Your task to perform on an android device: make emails show in primary in the gmail app Image 0: 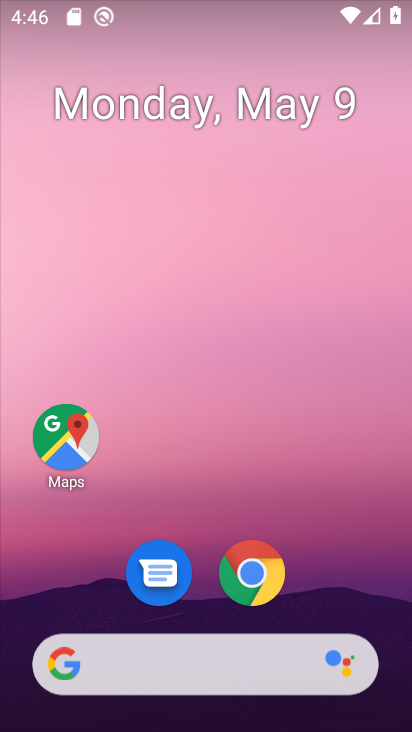
Step 0: drag from (393, 621) to (354, 130)
Your task to perform on an android device: make emails show in primary in the gmail app Image 1: 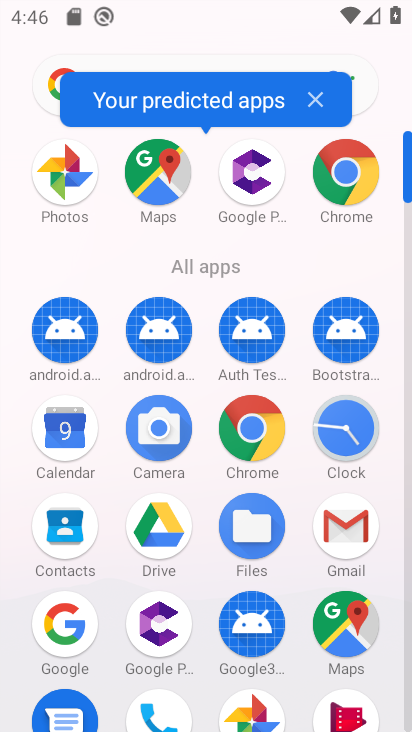
Step 1: click (341, 520)
Your task to perform on an android device: make emails show in primary in the gmail app Image 2: 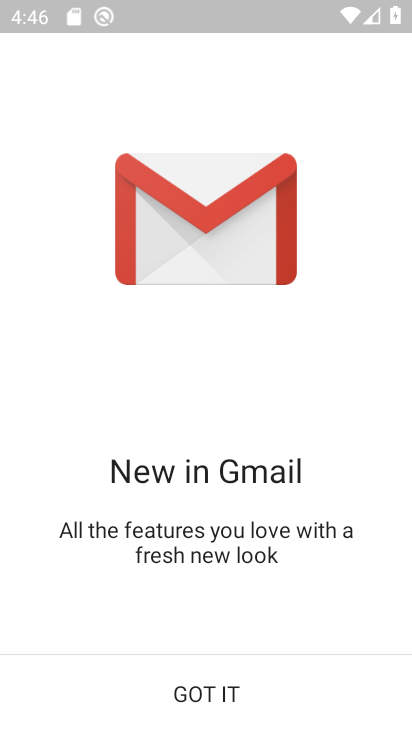
Step 2: click (216, 695)
Your task to perform on an android device: make emails show in primary in the gmail app Image 3: 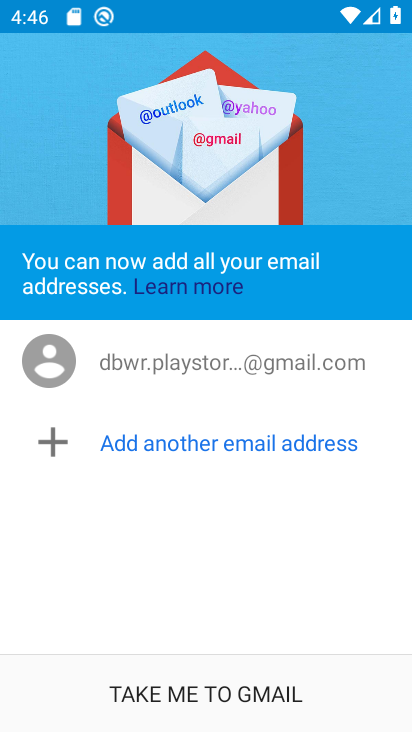
Step 3: click (176, 697)
Your task to perform on an android device: make emails show in primary in the gmail app Image 4: 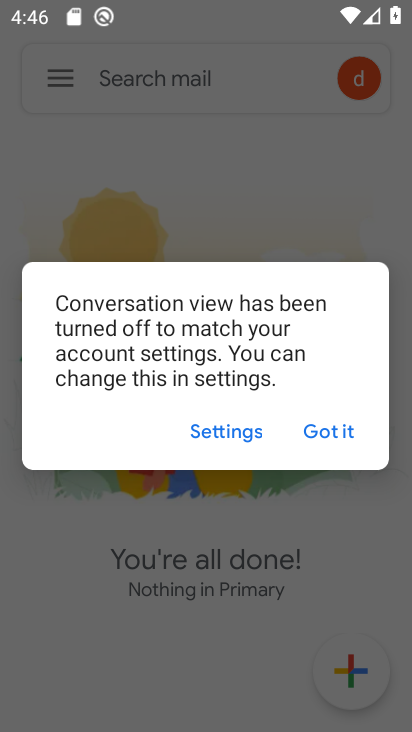
Step 4: click (336, 434)
Your task to perform on an android device: make emails show in primary in the gmail app Image 5: 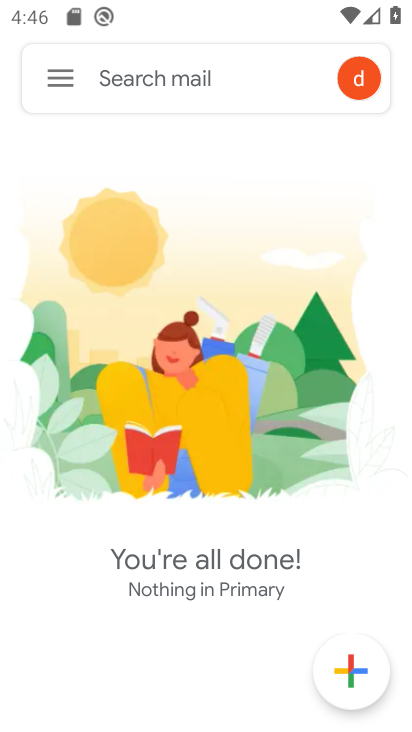
Step 5: click (59, 73)
Your task to perform on an android device: make emails show in primary in the gmail app Image 6: 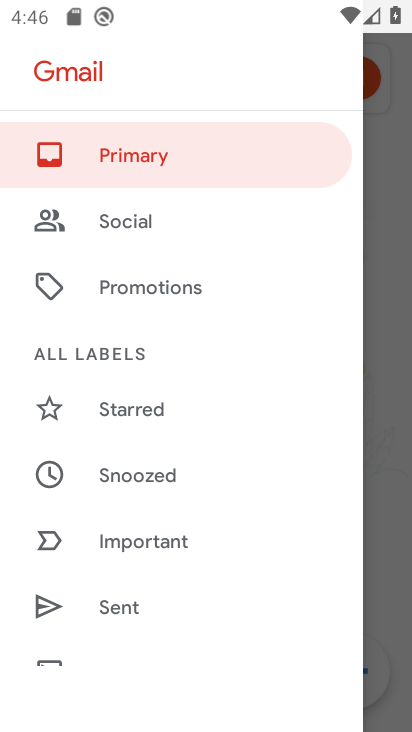
Step 6: click (169, 155)
Your task to perform on an android device: make emails show in primary in the gmail app Image 7: 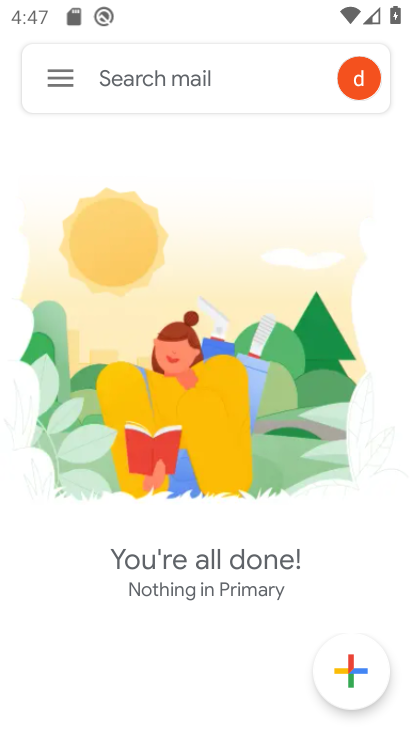
Step 7: task complete